Your task to perform on an android device: turn on showing notifications on the lock screen Image 0: 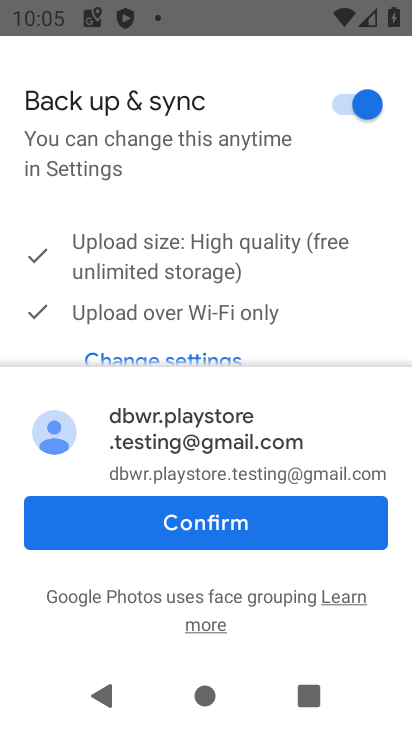
Step 0: press home button
Your task to perform on an android device: turn on showing notifications on the lock screen Image 1: 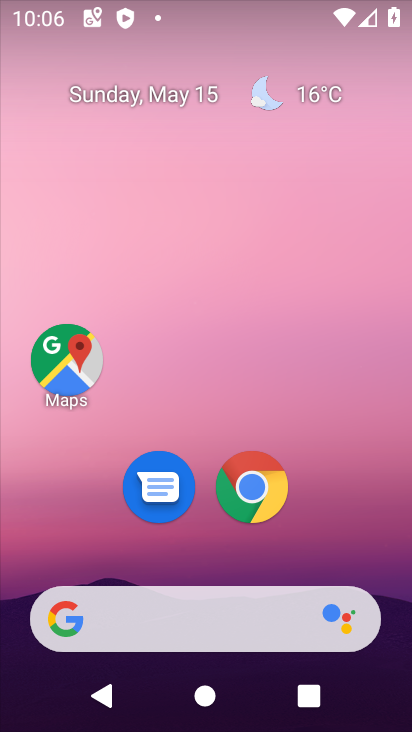
Step 1: drag from (405, 615) to (339, 0)
Your task to perform on an android device: turn on showing notifications on the lock screen Image 2: 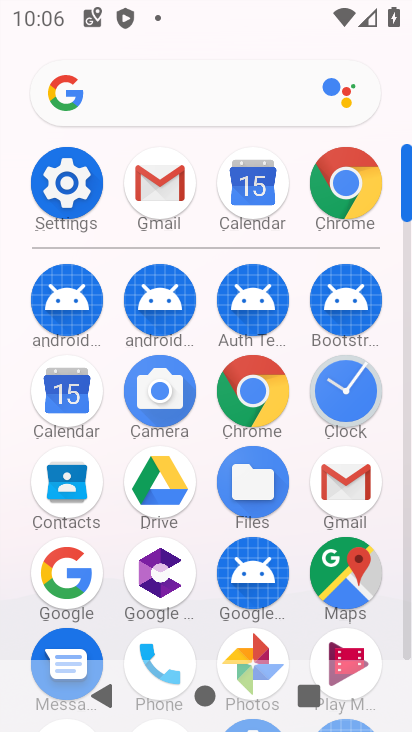
Step 2: click (409, 652)
Your task to perform on an android device: turn on showing notifications on the lock screen Image 3: 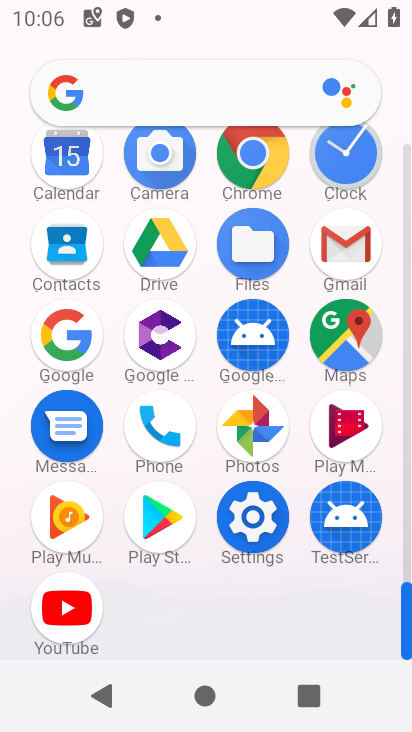
Step 3: click (251, 511)
Your task to perform on an android device: turn on showing notifications on the lock screen Image 4: 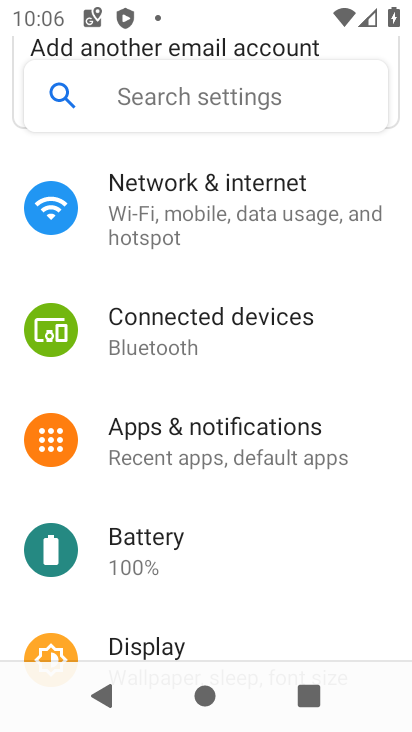
Step 4: click (201, 442)
Your task to perform on an android device: turn on showing notifications on the lock screen Image 5: 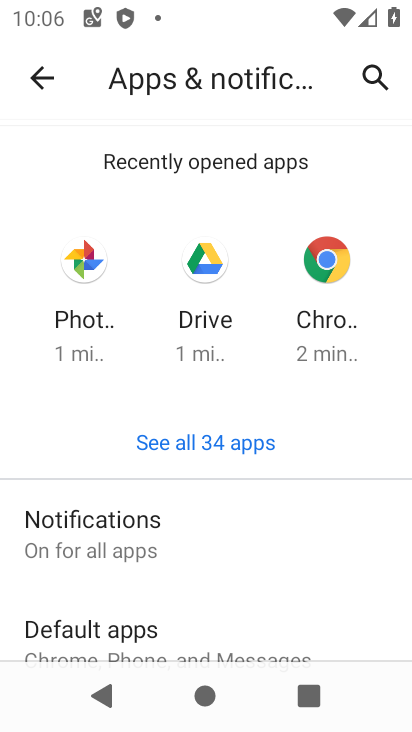
Step 5: drag from (239, 600) to (289, 226)
Your task to perform on an android device: turn on showing notifications on the lock screen Image 6: 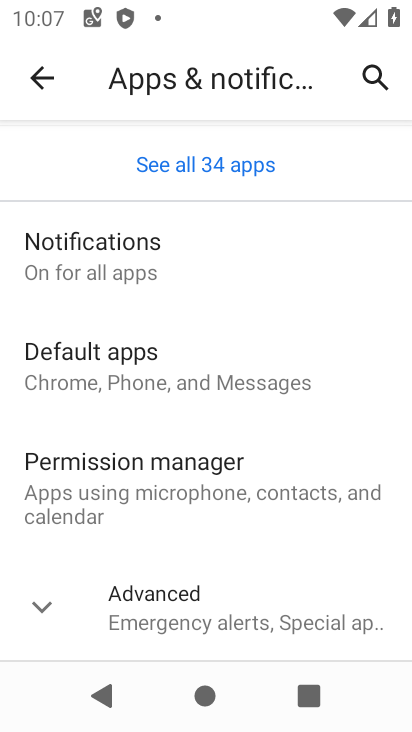
Step 6: click (53, 604)
Your task to perform on an android device: turn on showing notifications on the lock screen Image 7: 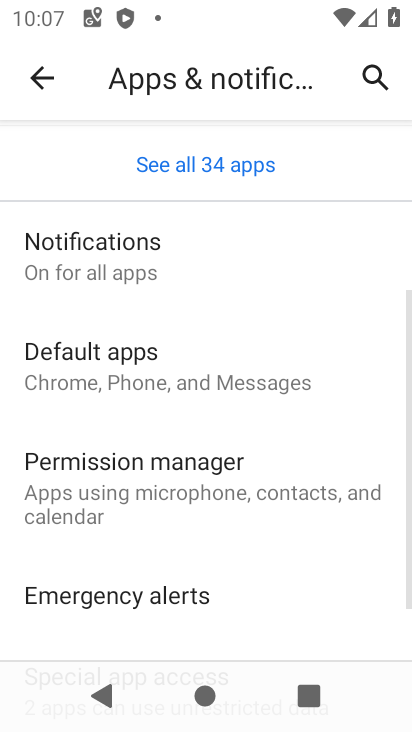
Step 7: click (170, 264)
Your task to perform on an android device: turn on showing notifications on the lock screen Image 8: 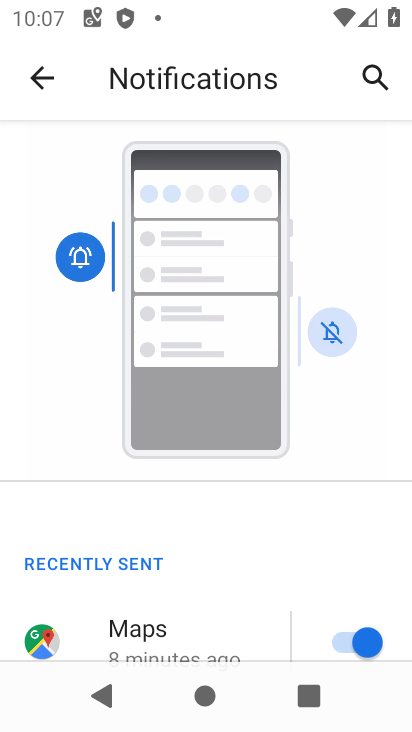
Step 8: drag from (255, 627) to (245, 117)
Your task to perform on an android device: turn on showing notifications on the lock screen Image 9: 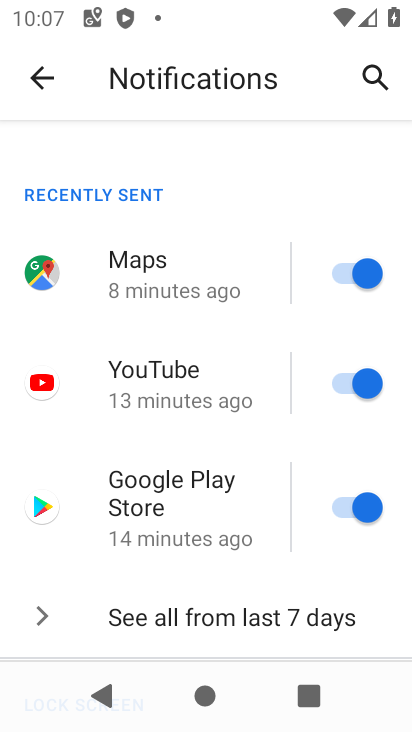
Step 9: drag from (285, 606) to (267, 133)
Your task to perform on an android device: turn on showing notifications on the lock screen Image 10: 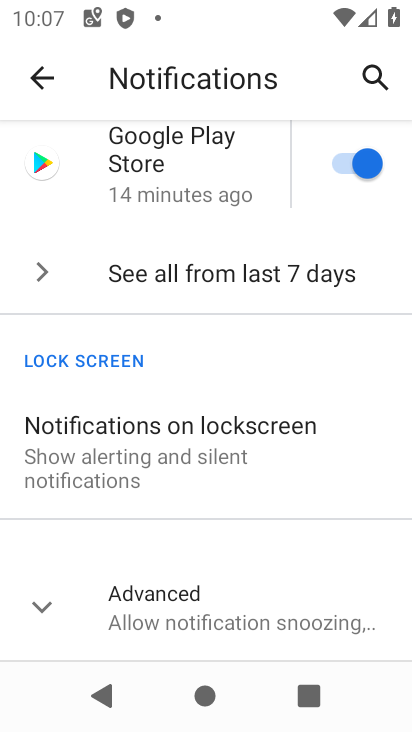
Step 10: click (146, 442)
Your task to perform on an android device: turn on showing notifications on the lock screen Image 11: 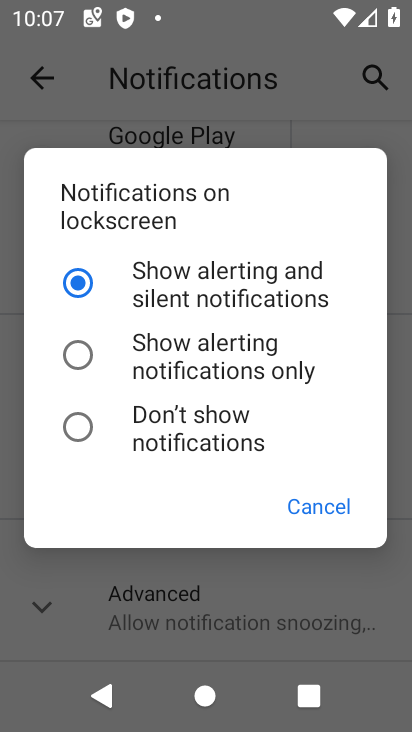
Step 11: task complete